Your task to perform on an android device: Check the weather Image 0: 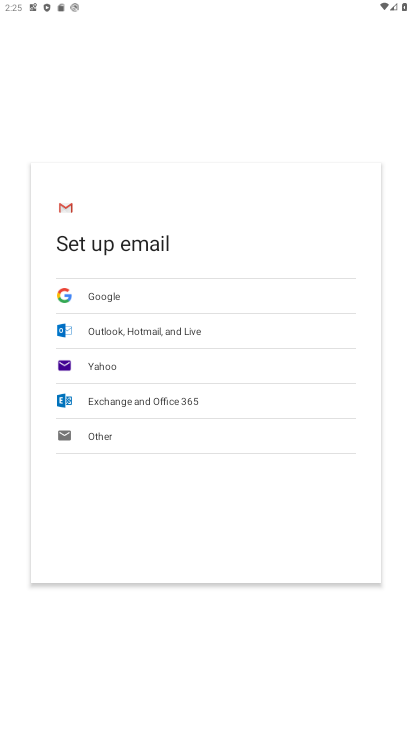
Step 0: press home button
Your task to perform on an android device: Check the weather Image 1: 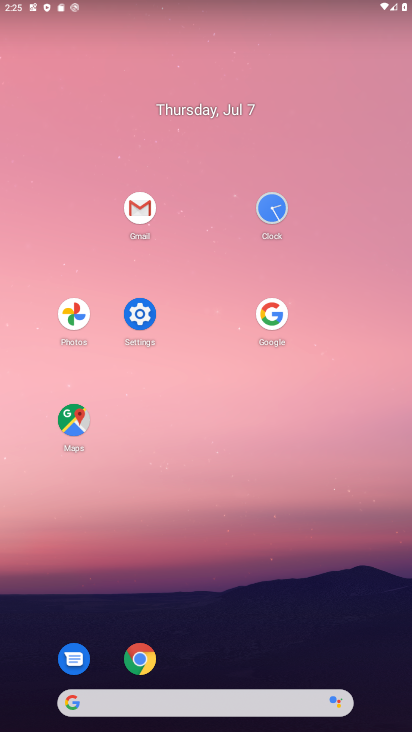
Step 1: click (277, 309)
Your task to perform on an android device: Check the weather Image 2: 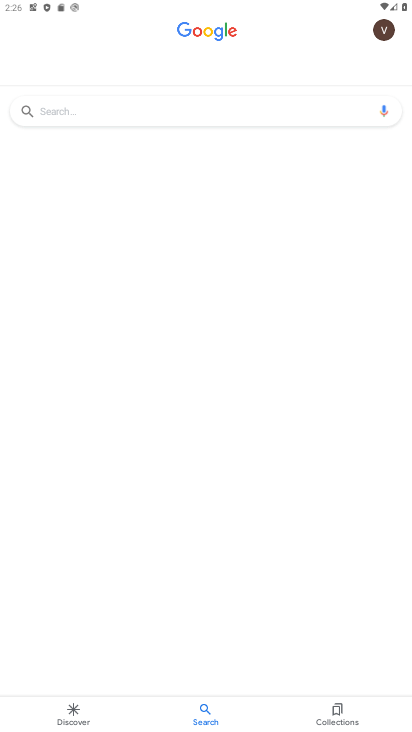
Step 2: click (126, 99)
Your task to perform on an android device: Check the weather Image 3: 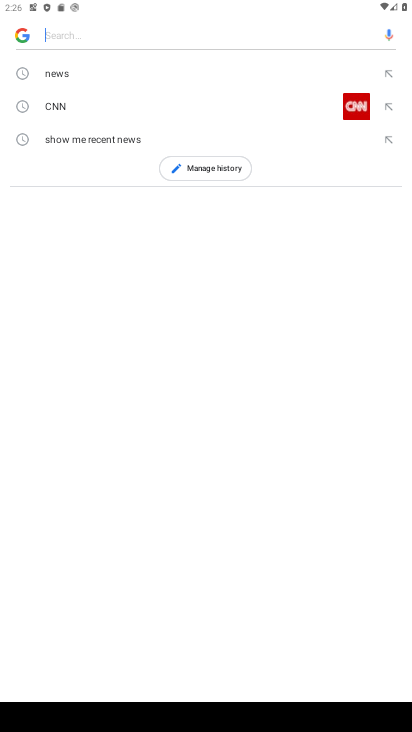
Step 3: type "weather"
Your task to perform on an android device: Check the weather Image 4: 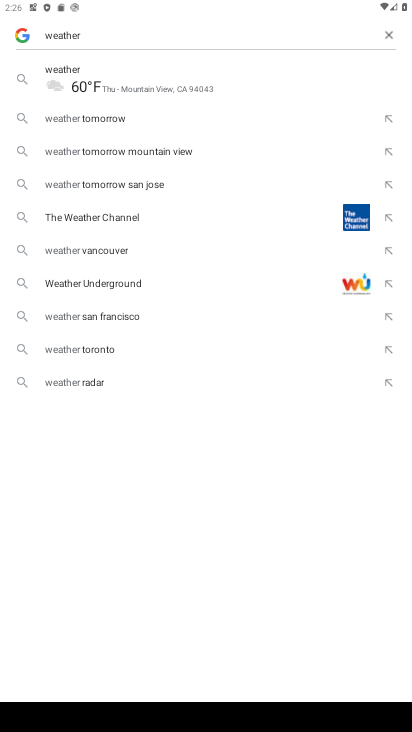
Step 4: click (92, 70)
Your task to perform on an android device: Check the weather Image 5: 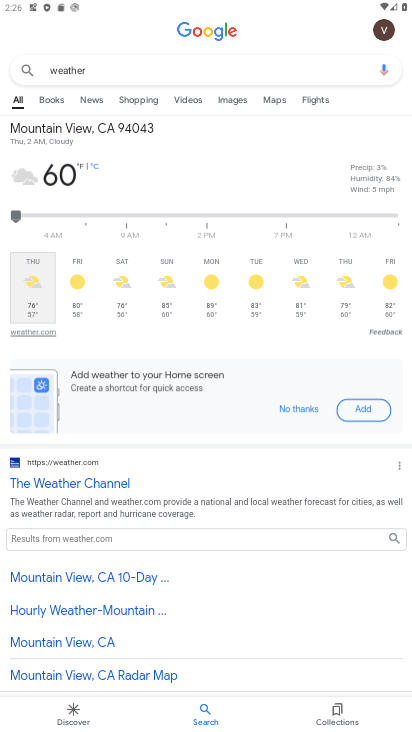
Step 5: task complete